Your task to perform on an android device: What's on my calendar today? Image 0: 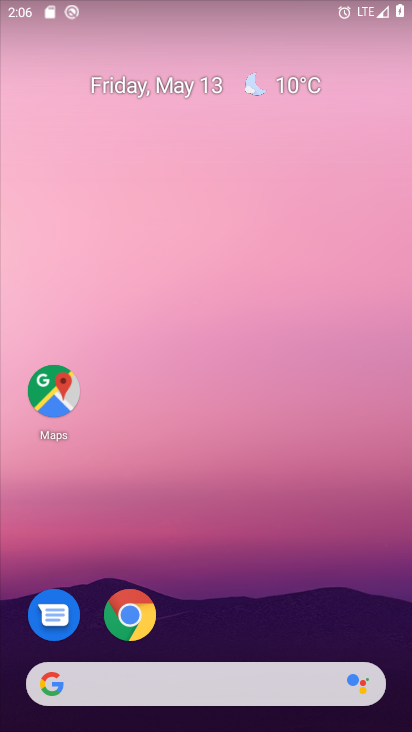
Step 0: drag from (261, 614) to (305, 43)
Your task to perform on an android device: What's on my calendar today? Image 1: 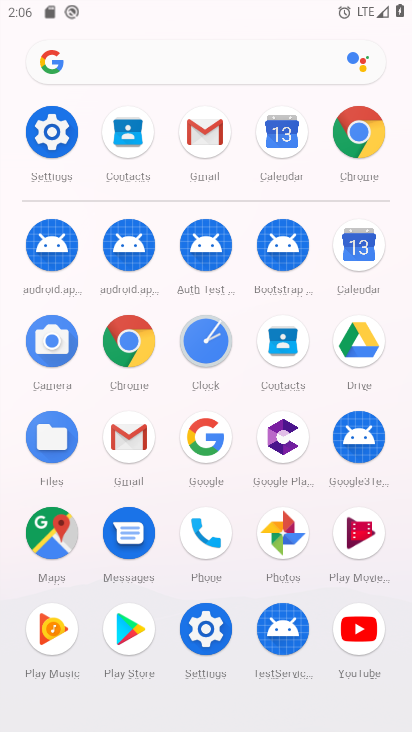
Step 1: click (367, 224)
Your task to perform on an android device: What's on my calendar today? Image 2: 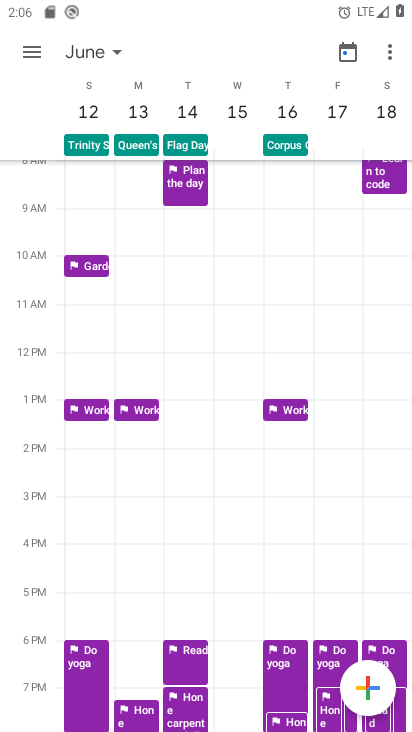
Step 2: click (34, 56)
Your task to perform on an android device: What's on my calendar today? Image 3: 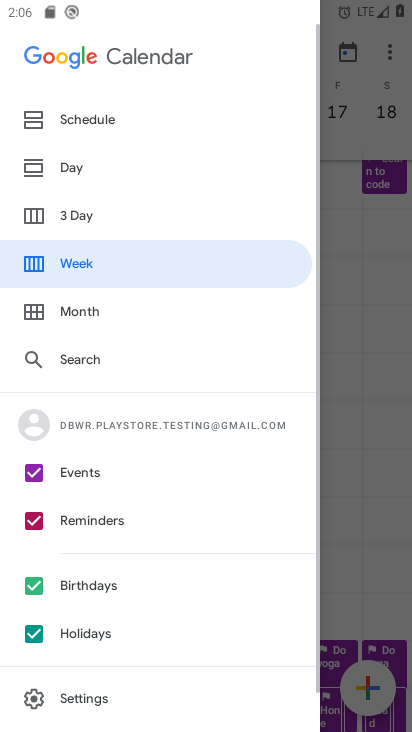
Step 3: click (84, 302)
Your task to perform on an android device: What's on my calendar today? Image 4: 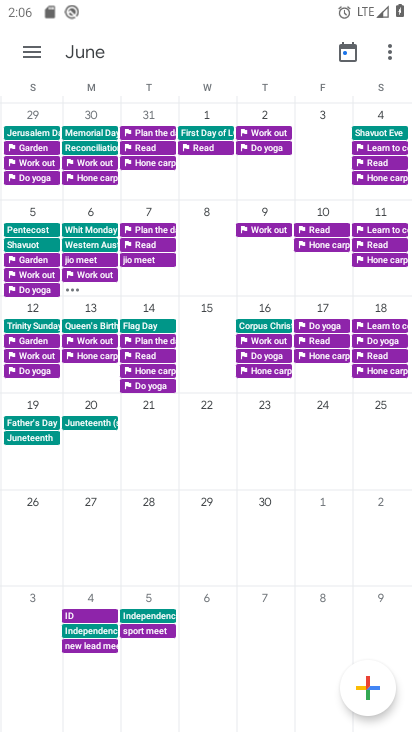
Step 4: drag from (54, 385) to (411, 304)
Your task to perform on an android device: What's on my calendar today? Image 5: 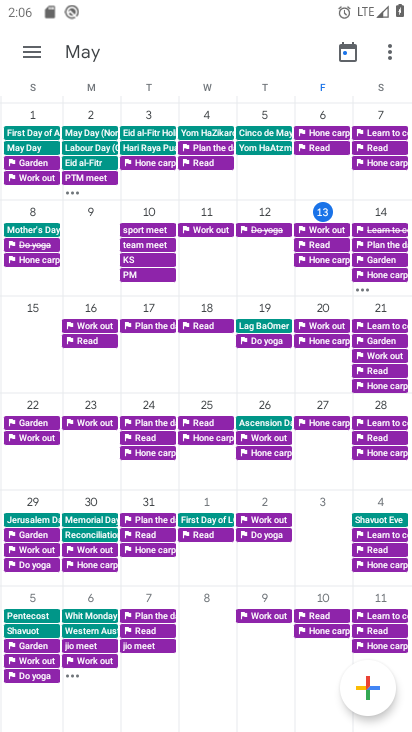
Step 5: click (322, 205)
Your task to perform on an android device: What's on my calendar today? Image 6: 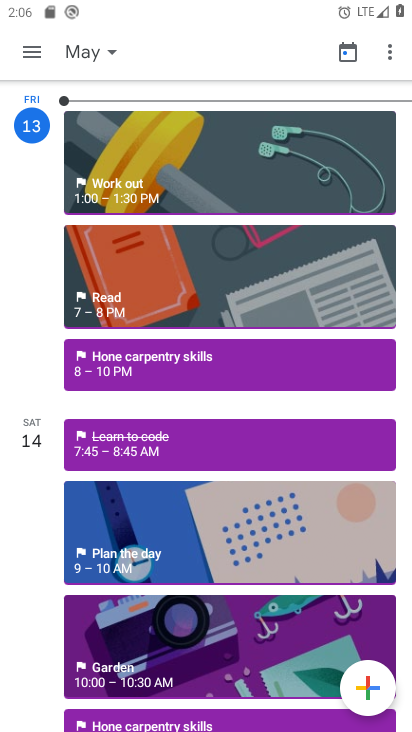
Step 6: task complete